Your task to perform on an android device: move an email to a new category in the gmail app Image 0: 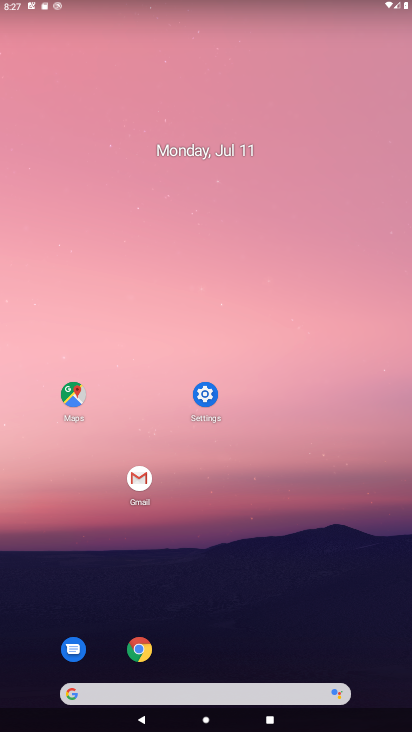
Step 0: click (139, 485)
Your task to perform on an android device: move an email to a new category in the gmail app Image 1: 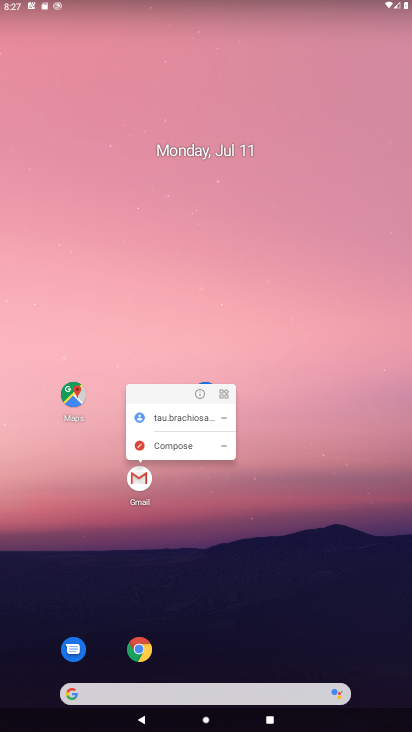
Step 1: click (139, 486)
Your task to perform on an android device: move an email to a new category in the gmail app Image 2: 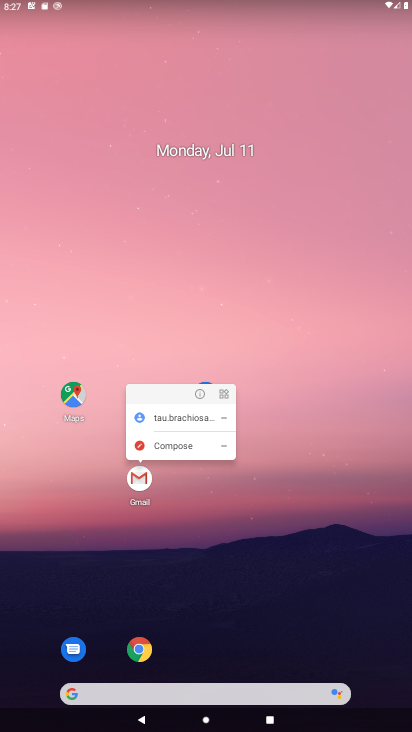
Step 2: click (139, 480)
Your task to perform on an android device: move an email to a new category in the gmail app Image 3: 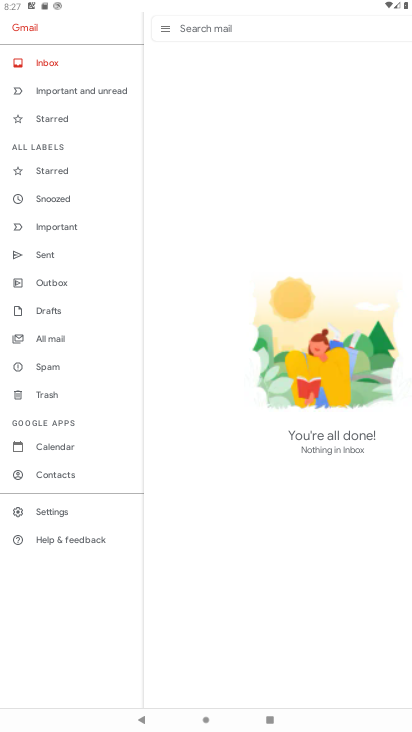
Step 3: task complete